Your task to perform on an android device: toggle location history Image 0: 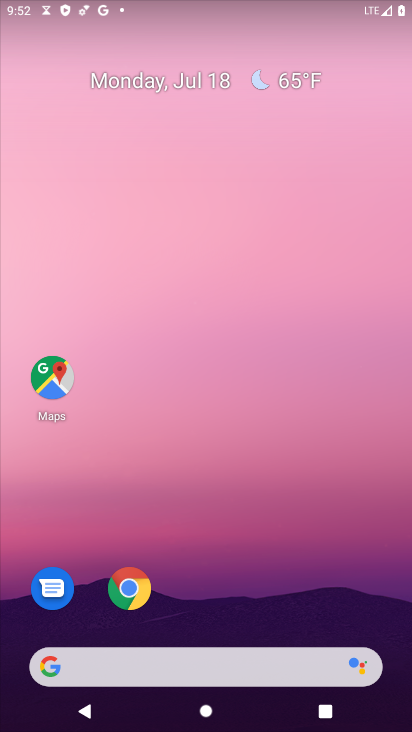
Step 0: drag from (202, 675) to (314, 5)
Your task to perform on an android device: toggle location history Image 1: 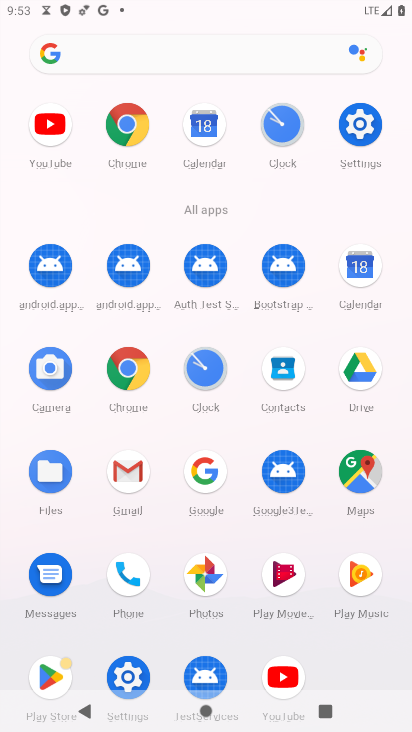
Step 1: click (360, 124)
Your task to perform on an android device: toggle location history Image 2: 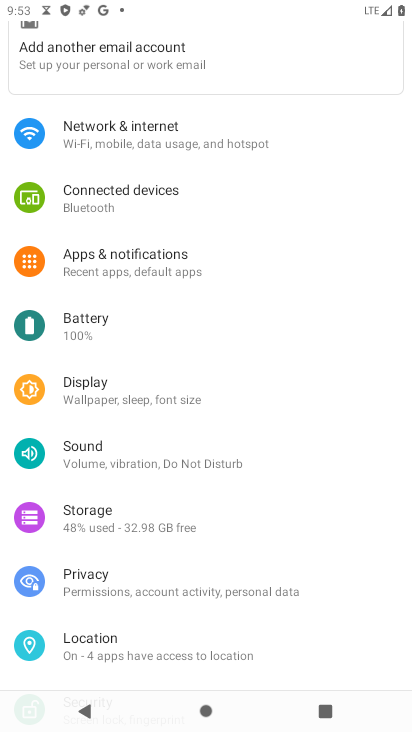
Step 2: click (92, 646)
Your task to perform on an android device: toggle location history Image 3: 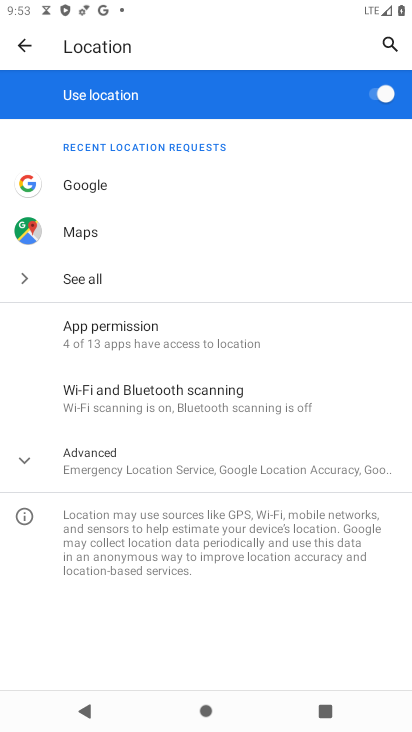
Step 3: click (128, 470)
Your task to perform on an android device: toggle location history Image 4: 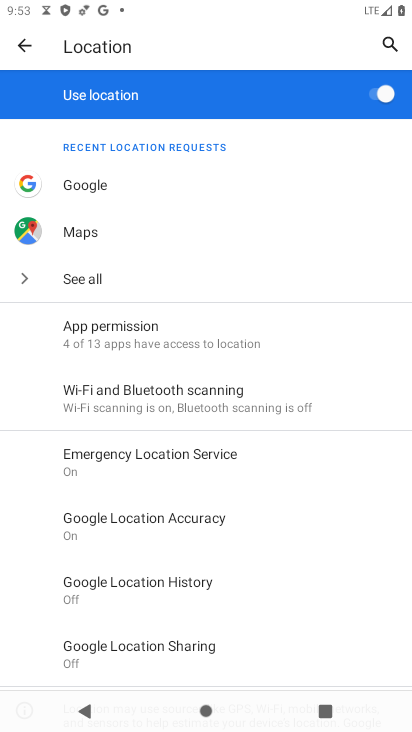
Step 4: click (111, 583)
Your task to perform on an android device: toggle location history Image 5: 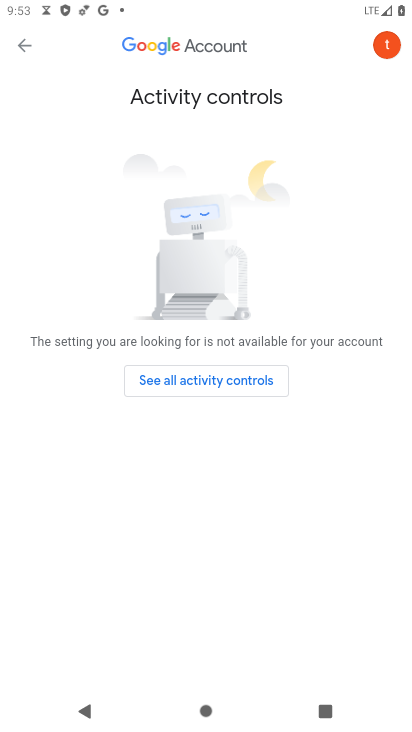
Step 5: click (200, 377)
Your task to perform on an android device: toggle location history Image 6: 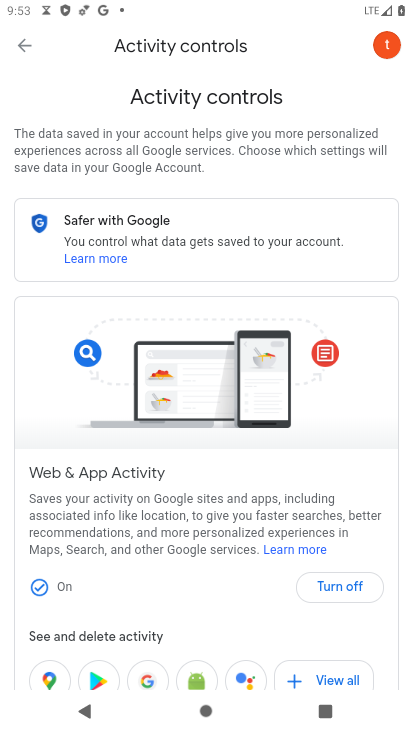
Step 6: click (326, 590)
Your task to perform on an android device: toggle location history Image 7: 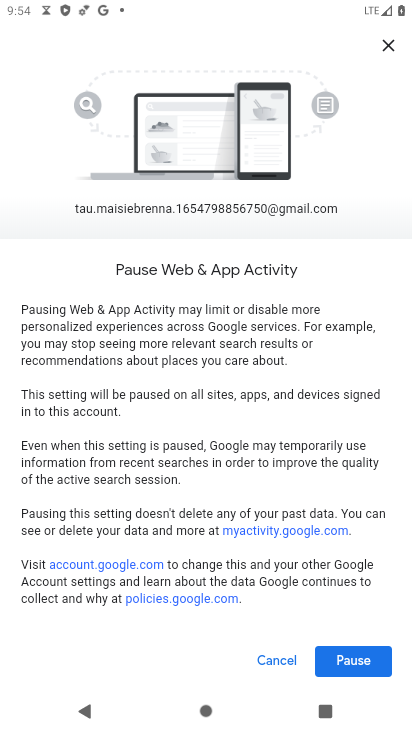
Step 7: click (349, 660)
Your task to perform on an android device: toggle location history Image 8: 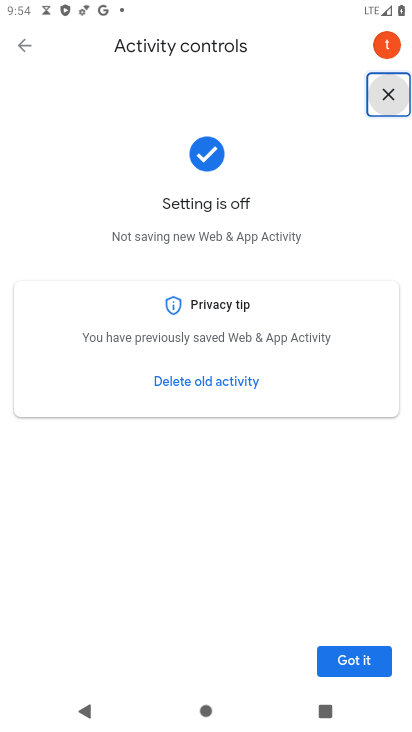
Step 8: click (349, 660)
Your task to perform on an android device: toggle location history Image 9: 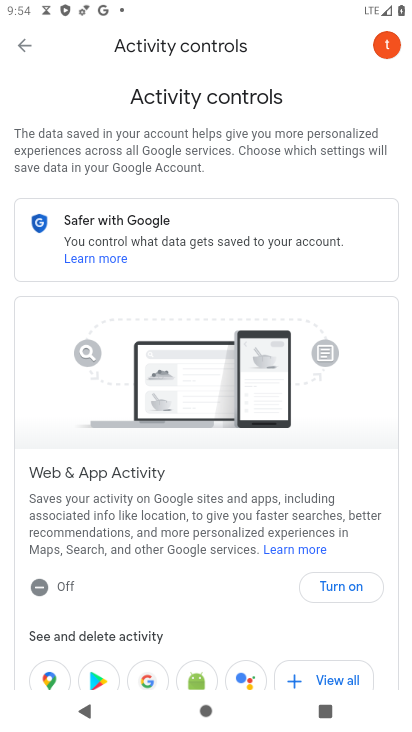
Step 9: task complete